Your task to perform on an android device: Search for pizza restaurants on Maps Image 0: 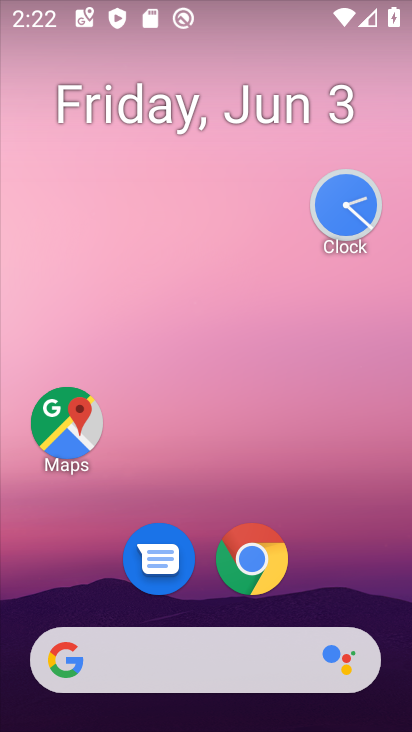
Step 0: click (90, 416)
Your task to perform on an android device: Search for pizza restaurants on Maps Image 1: 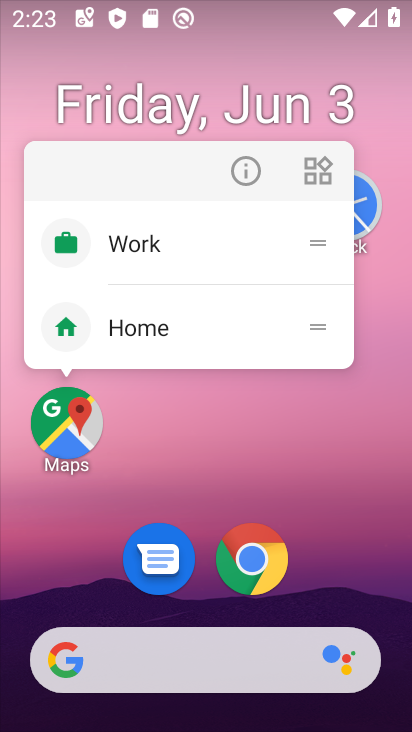
Step 1: click (87, 441)
Your task to perform on an android device: Search for pizza restaurants on Maps Image 2: 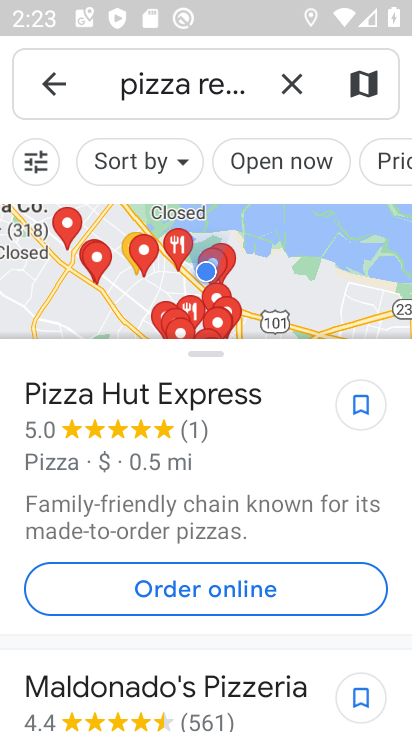
Step 2: task complete